Your task to perform on an android device: Go to notification settings Image 0: 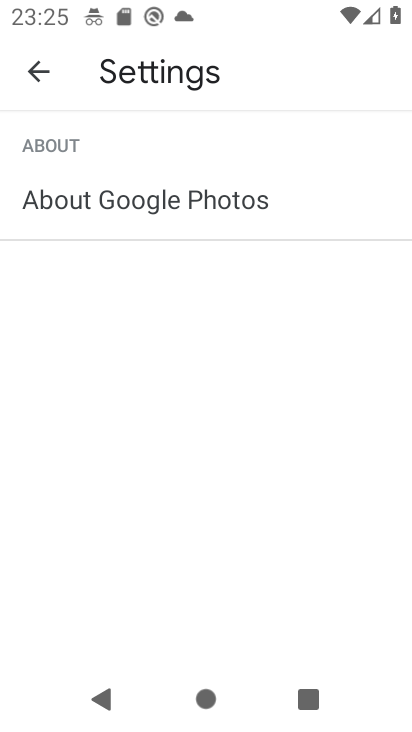
Step 0: press home button
Your task to perform on an android device: Go to notification settings Image 1: 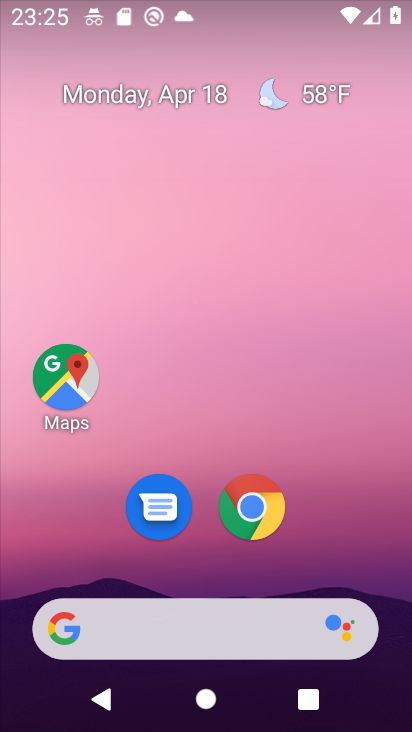
Step 1: drag from (210, 532) to (259, 60)
Your task to perform on an android device: Go to notification settings Image 2: 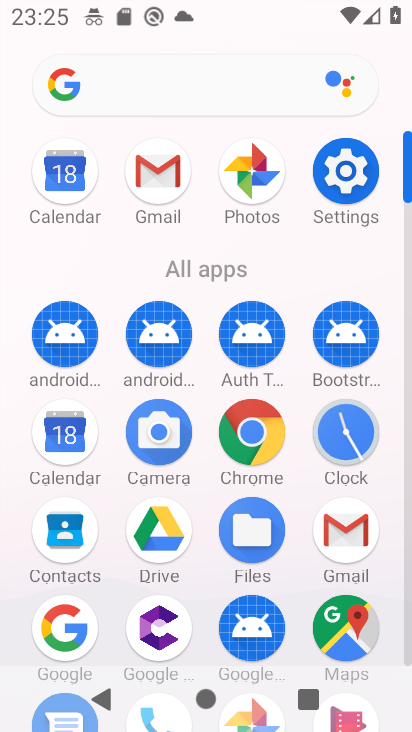
Step 2: click (352, 177)
Your task to perform on an android device: Go to notification settings Image 3: 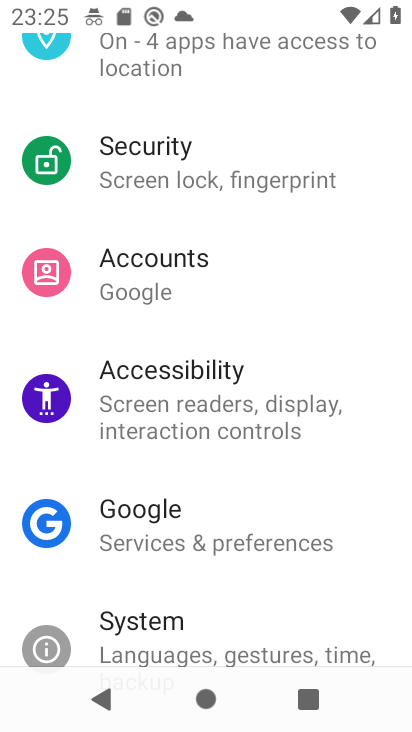
Step 3: drag from (228, 236) to (192, 634)
Your task to perform on an android device: Go to notification settings Image 4: 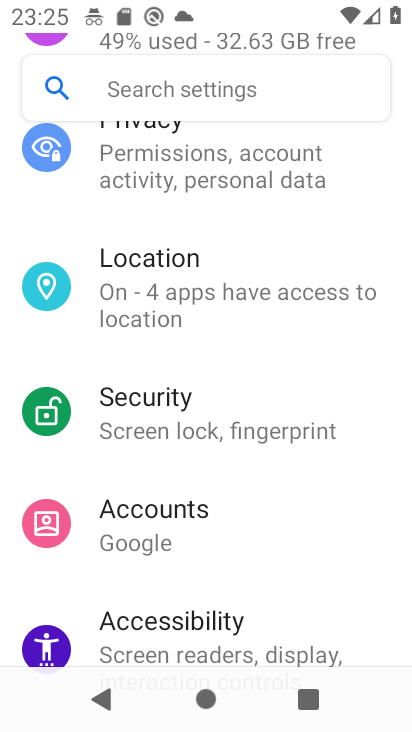
Step 4: drag from (239, 240) to (188, 664)
Your task to perform on an android device: Go to notification settings Image 5: 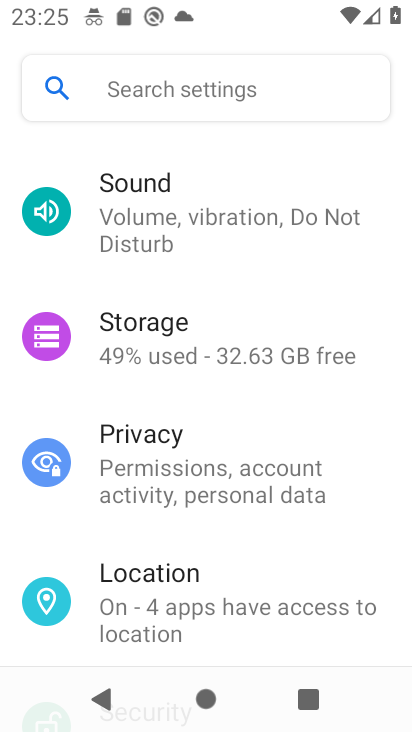
Step 5: drag from (211, 279) to (195, 653)
Your task to perform on an android device: Go to notification settings Image 6: 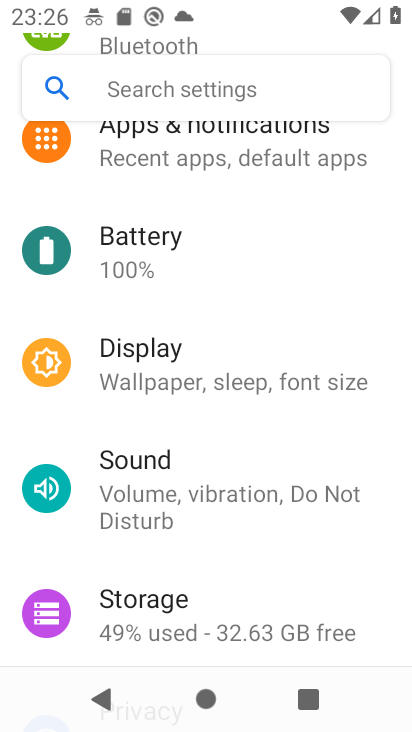
Step 6: drag from (209, 293) to (183, 649)
Your task to perform on an android device: Go to notification settings Image 7: 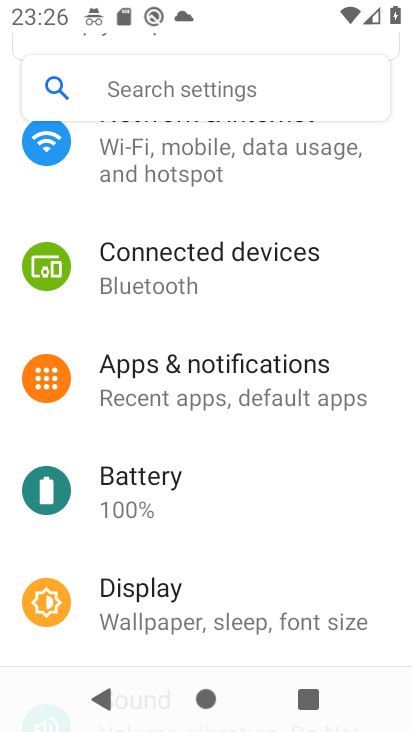
Step 7: click (176, 395)
Your task to perform on an android device: Go to notification settings Image 8: 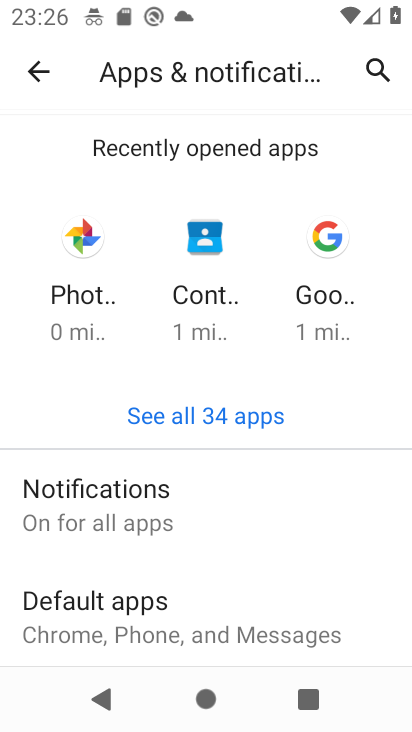
Step 8: click (155, 521)
Your task to perform on an android device: Go to notification settings Image 9: 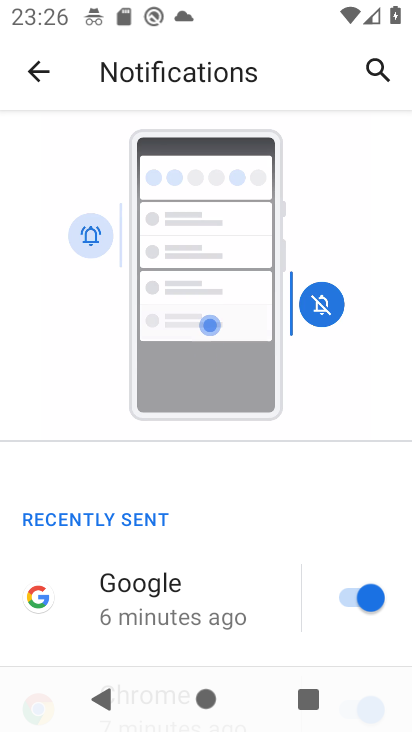
Step 9: task complete